Your task to perform on an android device: Open Chrome and go to the settings page Image 0: 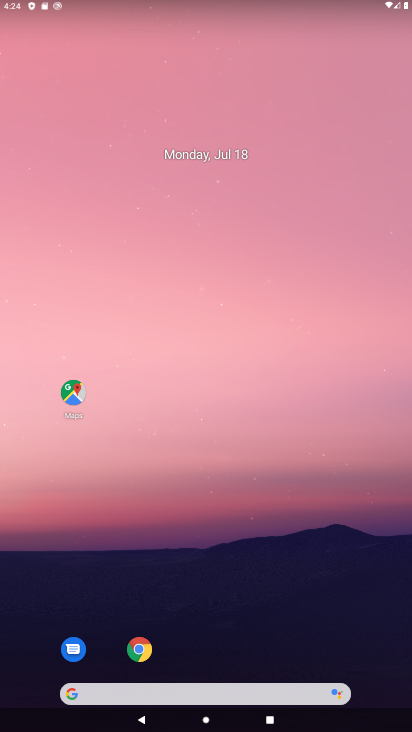
Step 0: click (137, 656)
Your task to perform on an android device: Open Chrome and go to the settings page Image 1: 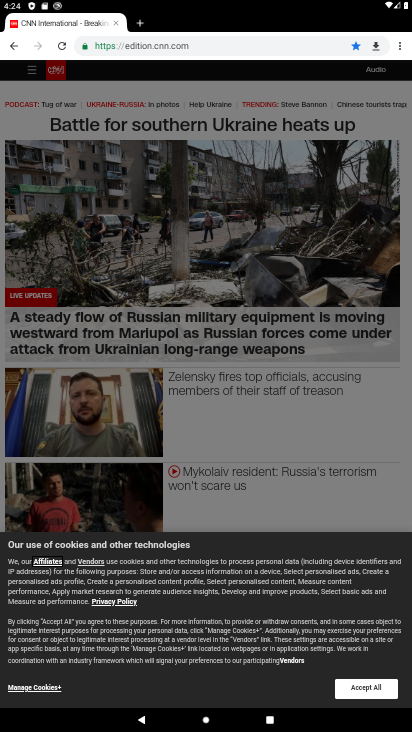
Step 1: click (404, 45)
Your task to perform on an android device: Open Chrome and go to the settings page Image 2: 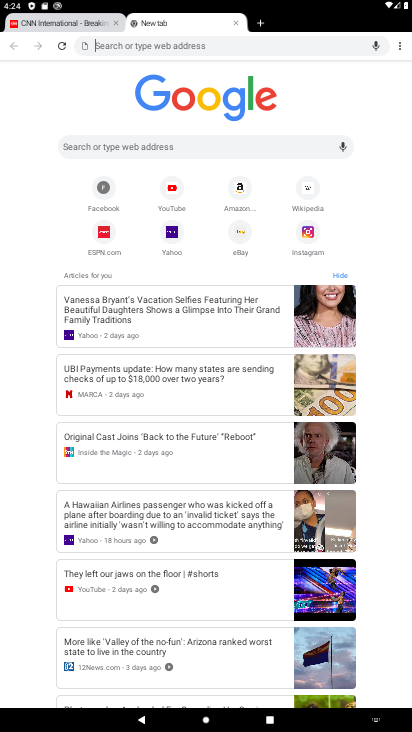
Step 2: click (395, 46)
Your task to perform on an android device: Open Chrome and go to the settings page Image 3: 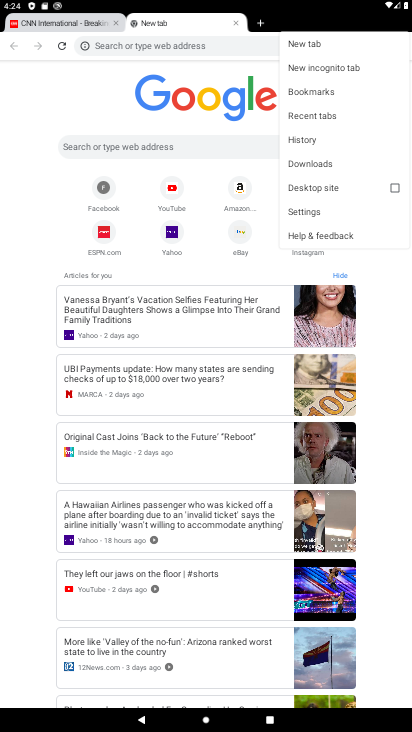
Step 3: click (300, 211)
Your task to perform on an android device: Open Chrome and go to the settings page Image 4: 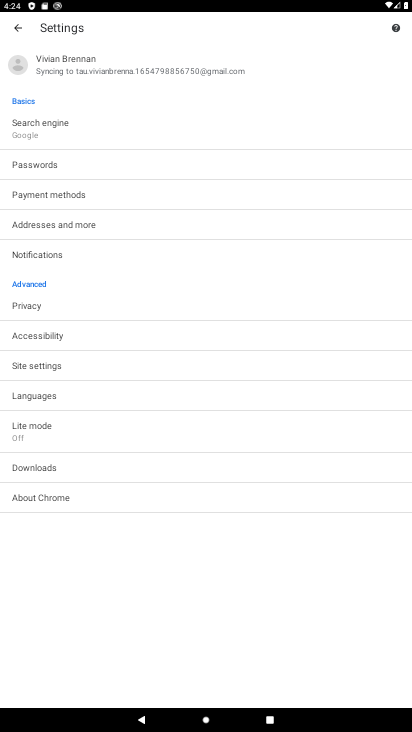
Step 4: task complete